Your task to perform on an android device: Open Yahoo.com Image 0: 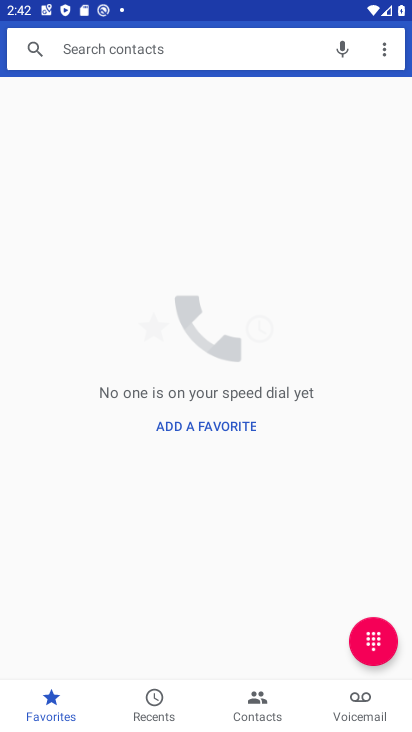
Step 0: press home button
Your task to perform on an android device: Open Yahoo.com Image 1: 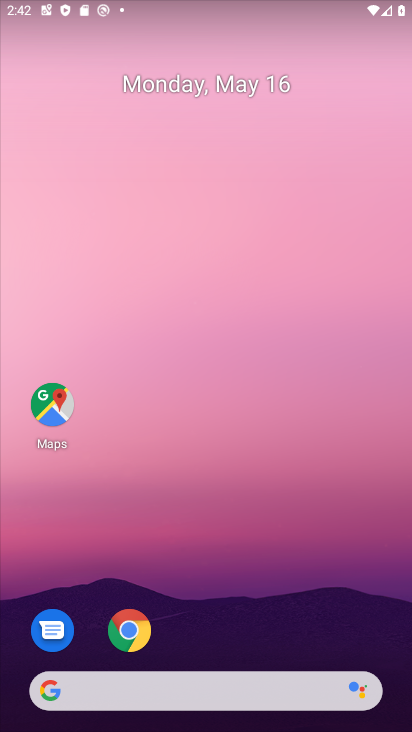
Step 1: drag from (244, 640) to (258, 161)
Your task to perform on an android device: Open Yahoo.com Image 2: 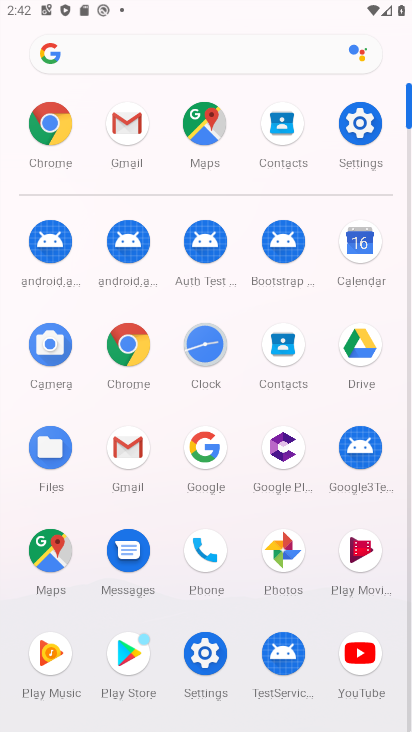
Step 2: drag from (247, 619) to (264, 141)
Your task to perform on an android device: Open Yahoo.com Image 3: 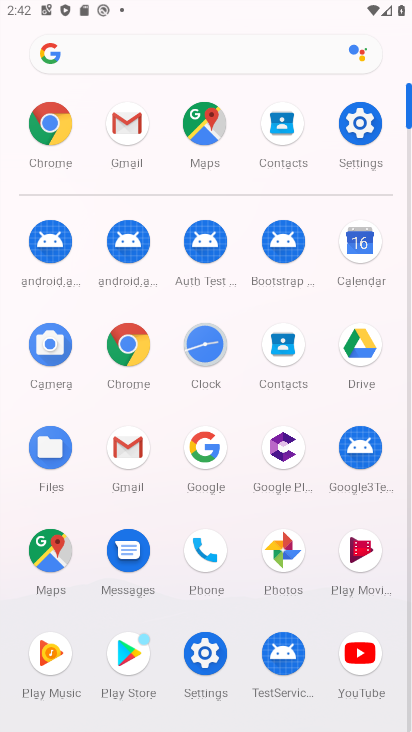
Step 3: click (133, 325)
Your task to perform on an android device: Open Yahoo.com Image 4: 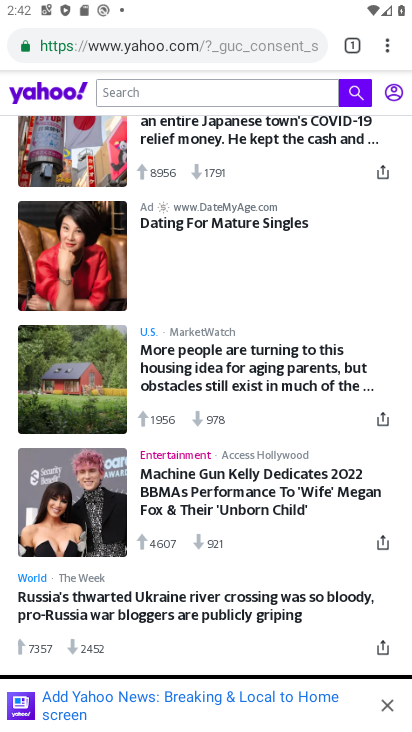
Step 4: task complete